Your task to perform on an android device: Is it going to rain today? Image 0: 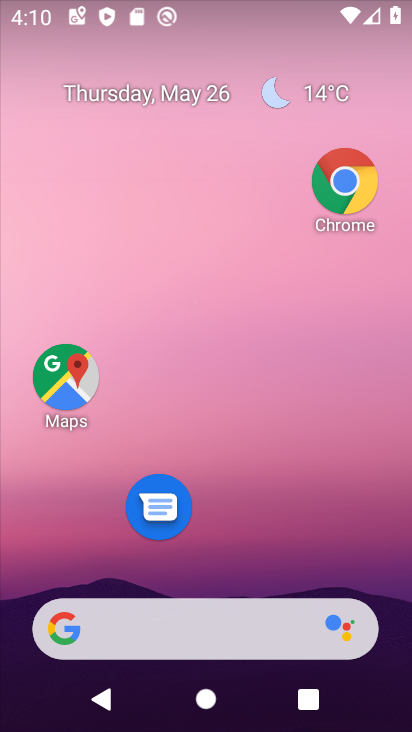
Step 0: drag from (280, 546) to (304, 71)
Your task to perform on an android device: Is it going to rain today? Image 1: 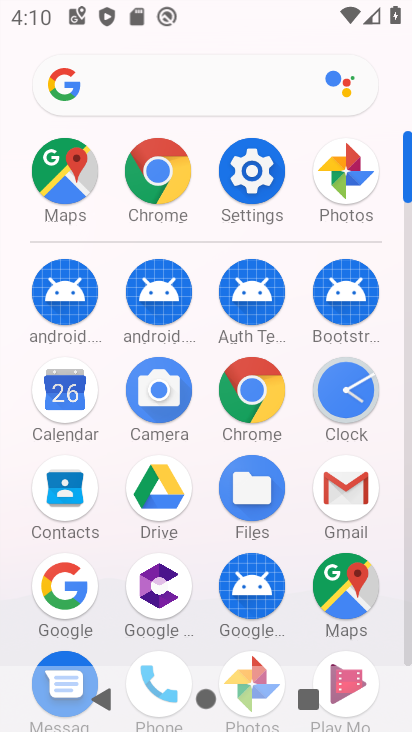
Step 1: click (261, 375)
Your task to perform on an android device: Is it going to rain today? Image 2: 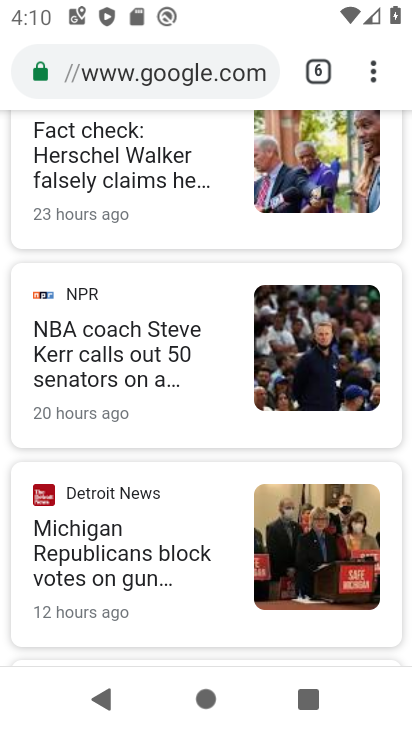
Step 2: click (169, 65)
Your task to perform on an android device: Is it going to rain today? Image 3: 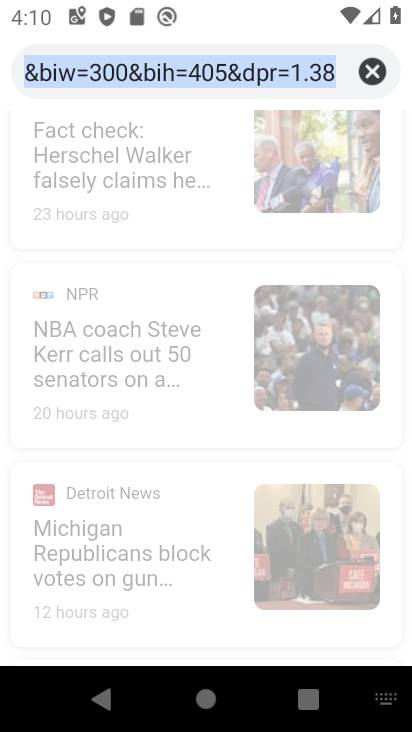
Step 3: click (369, 64)
Your task to perform on an android device: Is it going to rain today? Image 4: 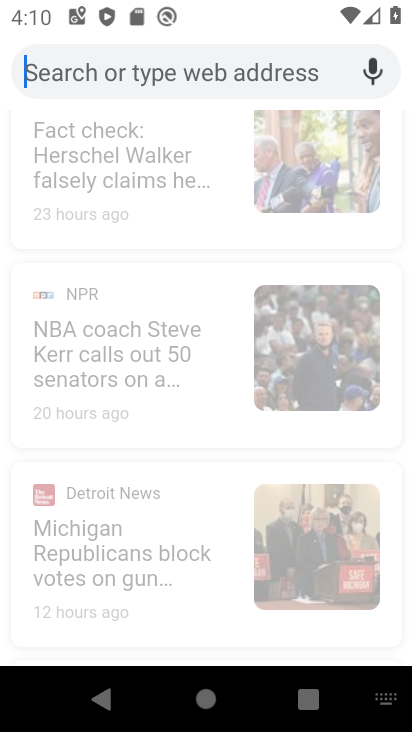
Step 4: type "Is it going to rain today?"
Your task to perform on an android device: Is it going to rain today? Image 5: 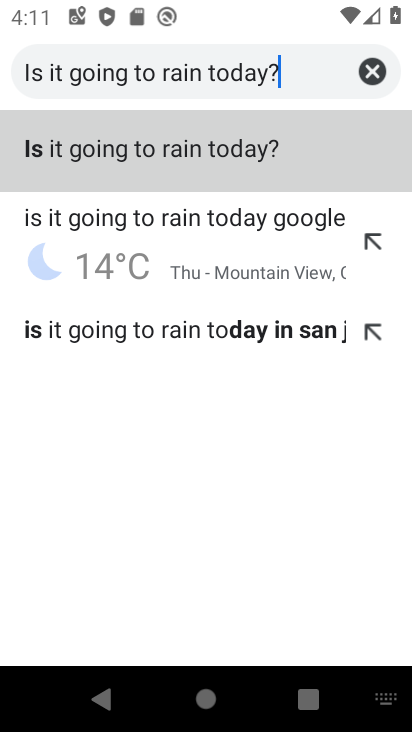
Step 5: click (110, 152)
Your task to perform on an android device: Is it going to rain today? Image 6: 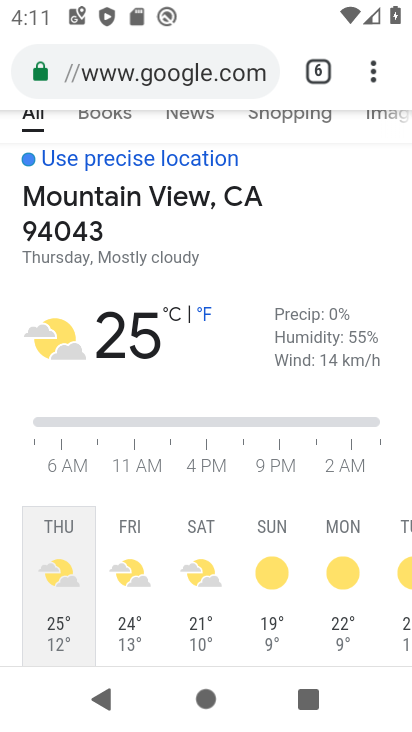
Step 6: task complete